Your task to perform on an android device: What's the weather going to be tomorrow? Image 0: 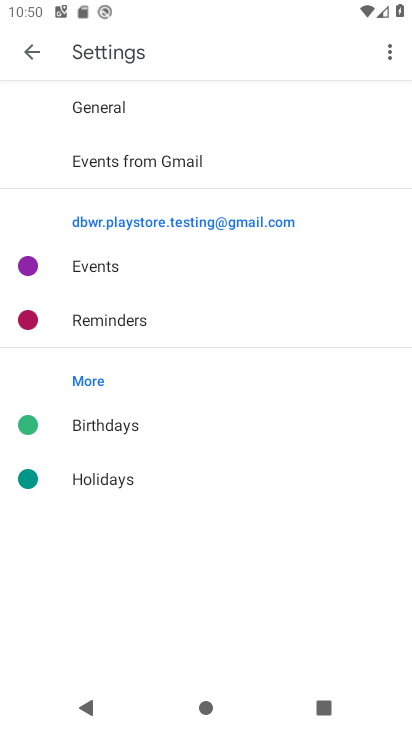
Step 0: press home button
Your task to perform on an android device: What's the weather going to be tomorrow? Image 1: 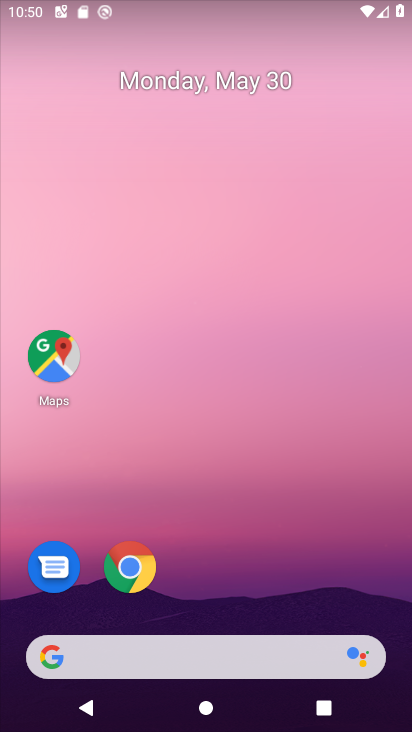
Step 1: drag from (204, 609) to (255, 247)
Your task to perform on an android device: What's the weather going to be tomorrow? Image 2: 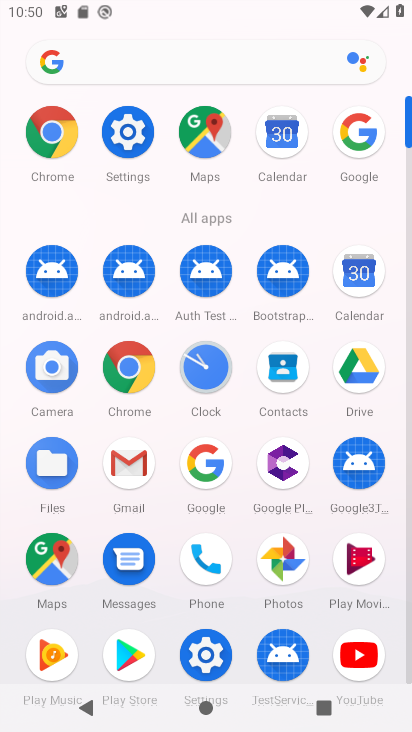
Step 2: click (211, 471)
Your task to perform on an android device: What's the weather going to be tomorrow? Image 3: 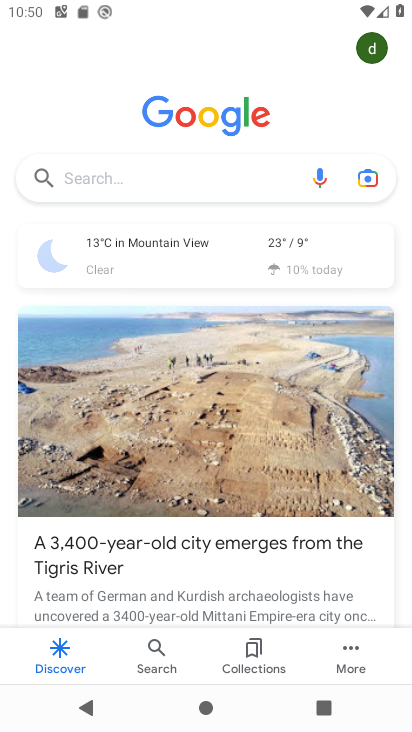
Step 3: click (252, 180)
Your task to perform on an android device: What's the weather going to be tomorrow? Image 4: 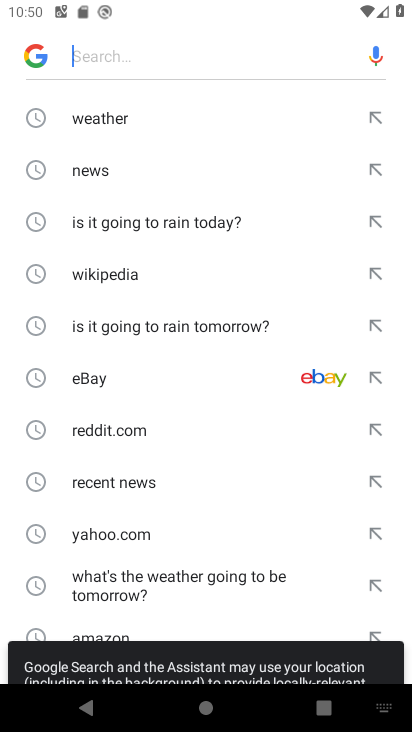
Step 4: drag from (170, 472) to (192, 280)
Your task to perform on an android device: What's the weather going to be tomorrow? Image 5: 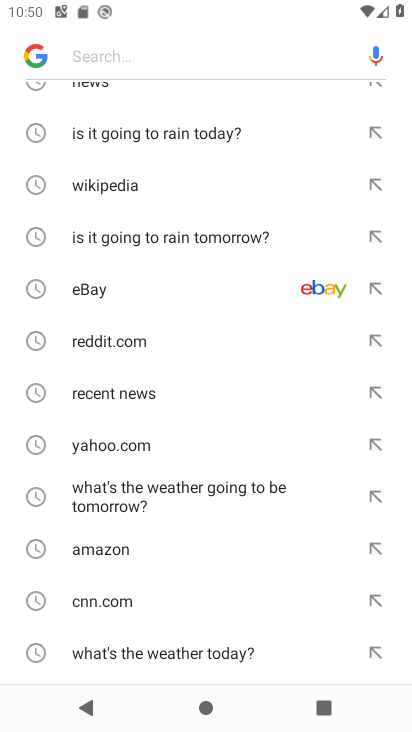
Step 5: click (184, 490)
Your task to perform on an android device: What's the weather going to be tomorrow? Image 6: 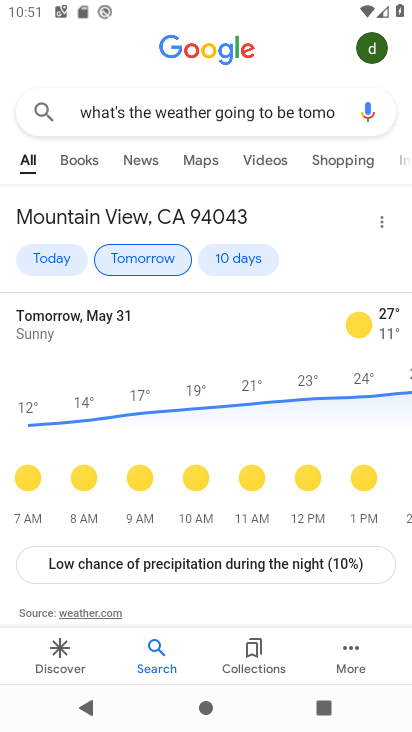
Step 6: task complete